Your task to perform on an android device: turn off location Image 0: 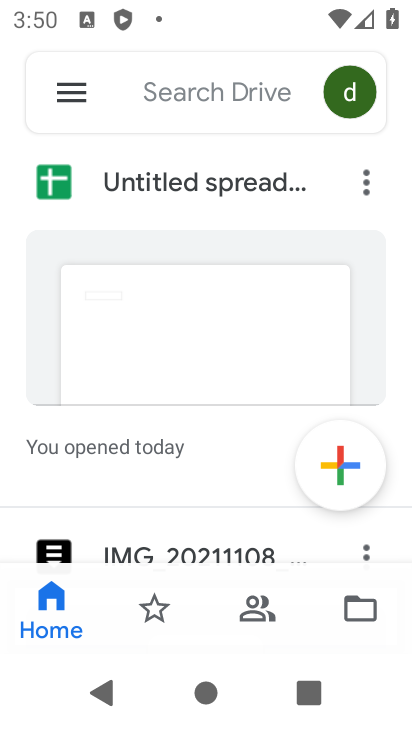
Step 0: task complete